Your task to perform on an android device: Go to CNN.com Image 0: 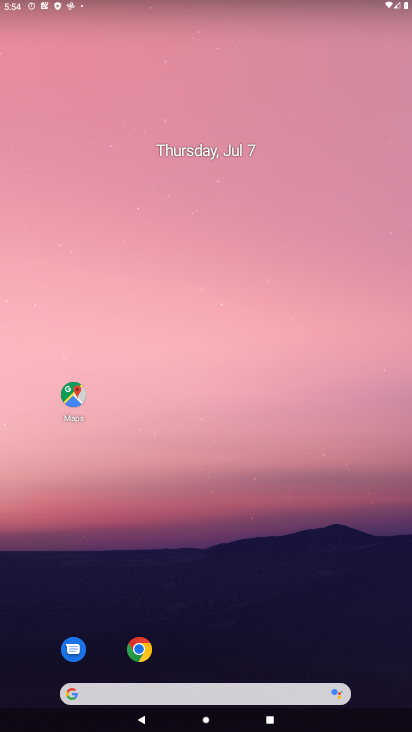
Step 0: drag from (378, 667) to (250, 53)
Your task to perform on an android device: Go to CNN.com Image 1: 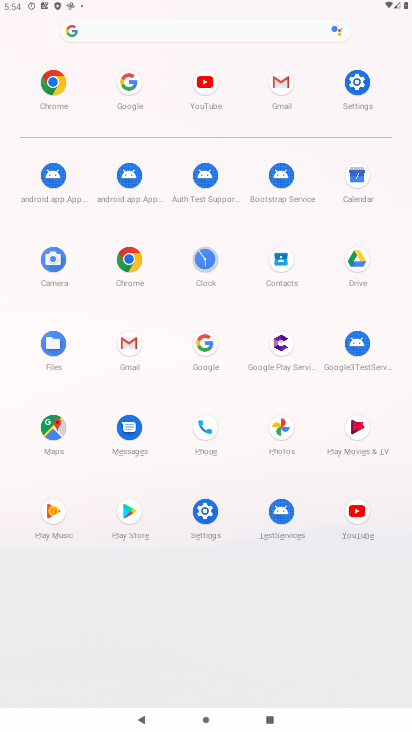
Step 1: click (206, 361)
Your task to perform on an android device: Go to CNN.com Image 2: 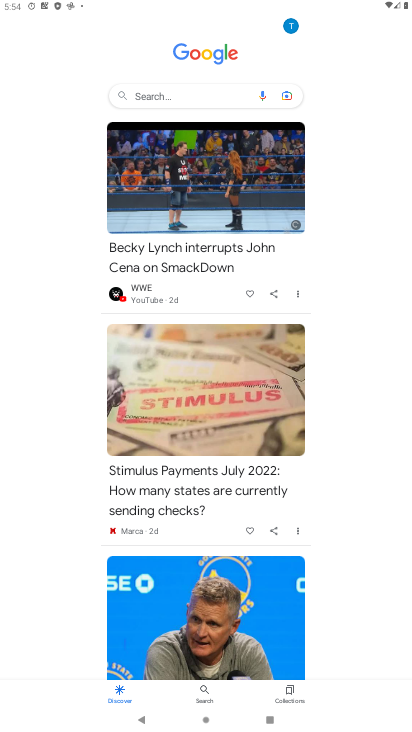
Step 2: click (205, 97)
Your task to perform on an android device: Go to CNN.com Image 3: 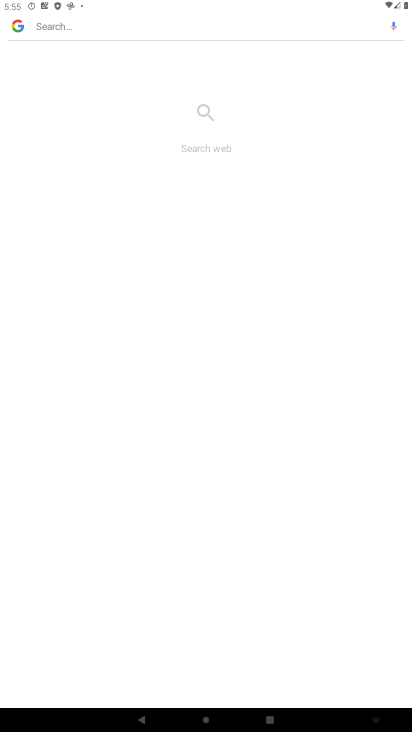
Step 3: type "CNN.com"
Your task to perform on an android device: Go to CNN.com Image 4: 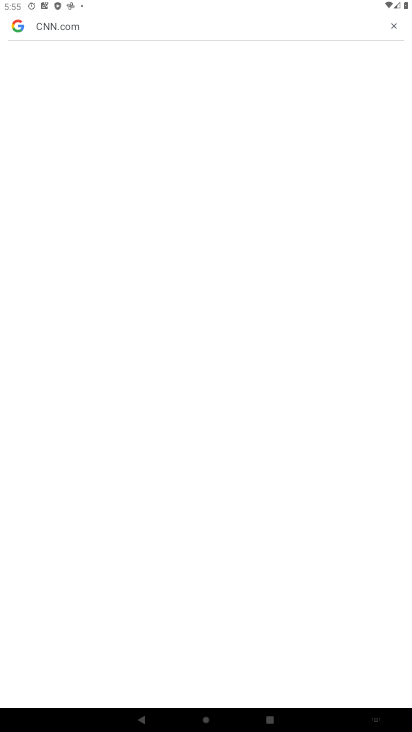
Step 4: task complete